Your task to perform on an android device: Is it going to rain tomorrow? Image 0: 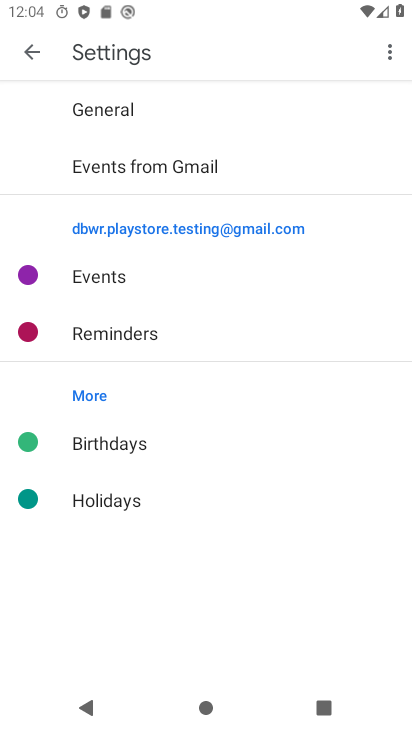
Step 0: press home button
Your task to perform on an android device: Is it going to rain tomorrow? Image 1: 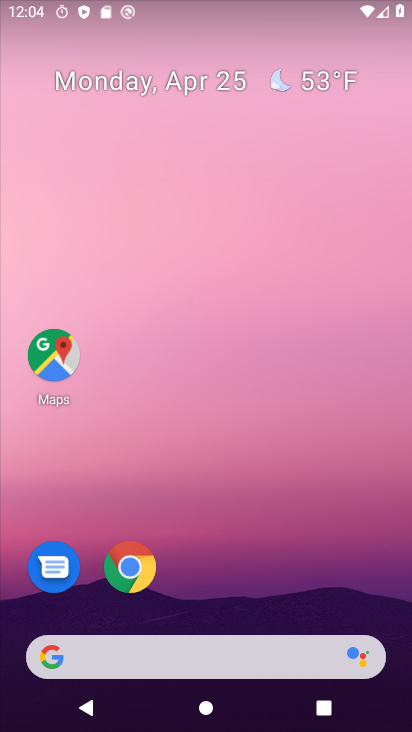
Step 1: click (291, 80)
Your task to perform on an android device: Is it going to rain tomorrow? Image 2: 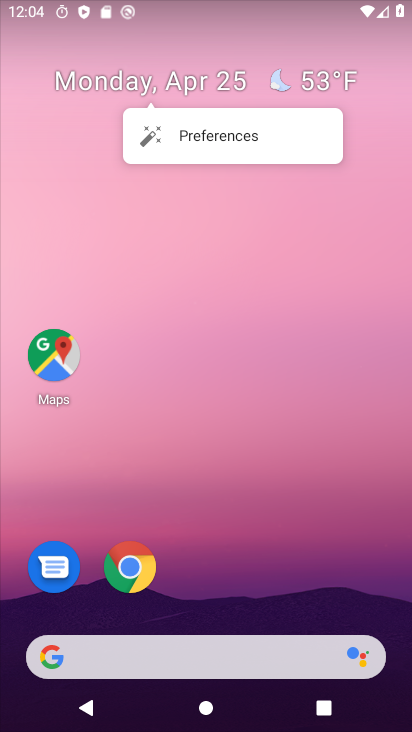
Step 2: click (301, 72)
Your task to perform on an android device: Is it going to rain tomorrow? Image 3: 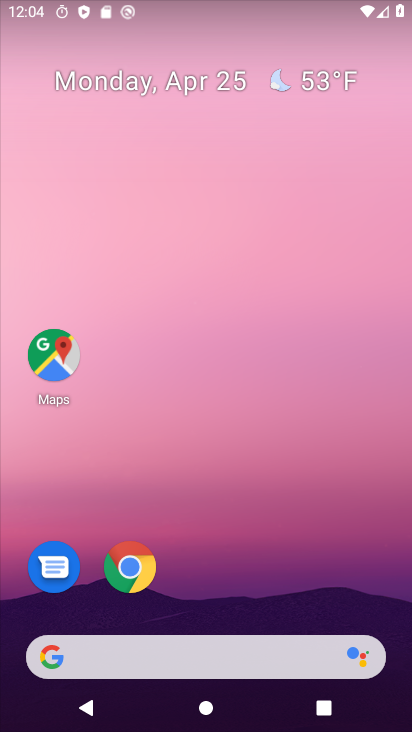
Step 3: click (301, 72)
Your task to perform on an android device: Is it going to rain tomorrow? Image 4: 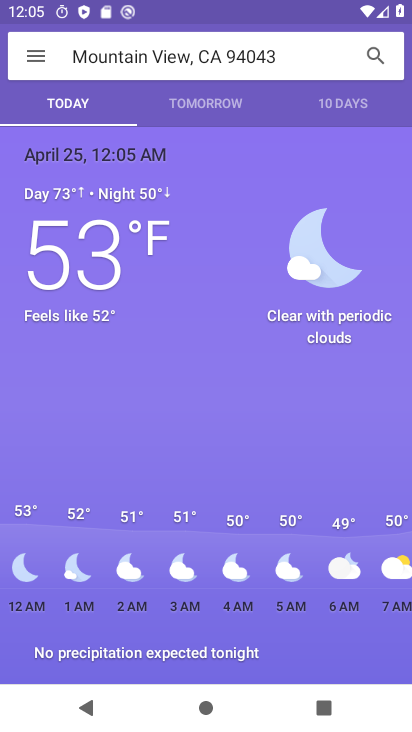
Step 4: click (221, 102)
Your task to perform on an android device: Is it going to rain tomorrow? Image 5: 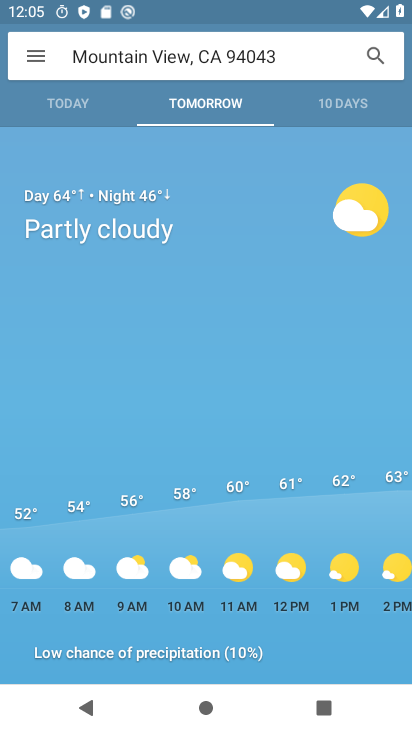
Step 5: task complete